Your task to perform on an android device: Open Google Maps Image 0: 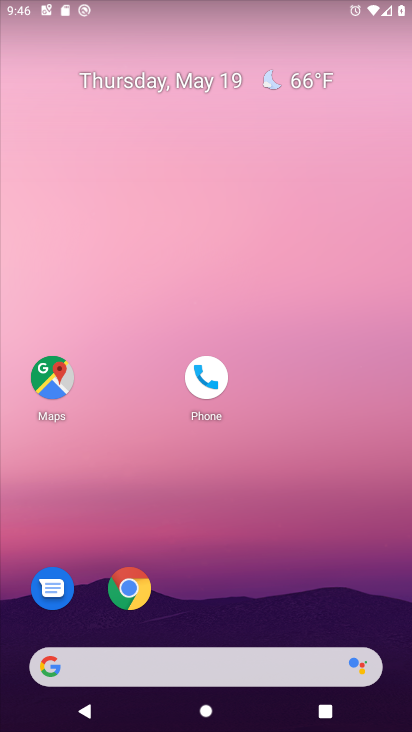
Step 0: drag from (309, 582) to (335, 160)
Your task to perform on an android device: Open Google Maps Image 1: 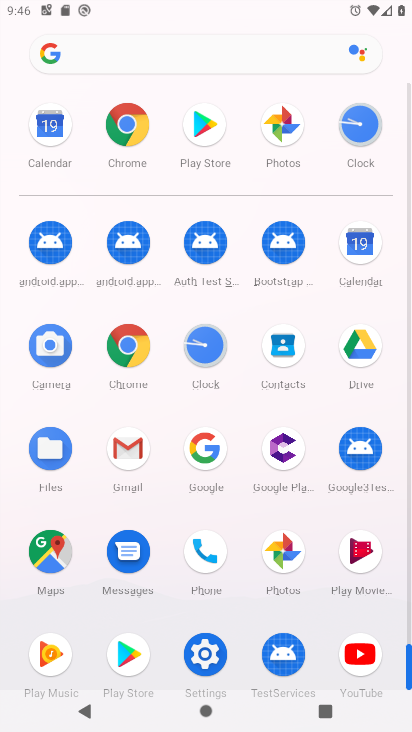
Step 1: click (62, 559)
Your task to perform on an android device: Open Google Maps Image 2: 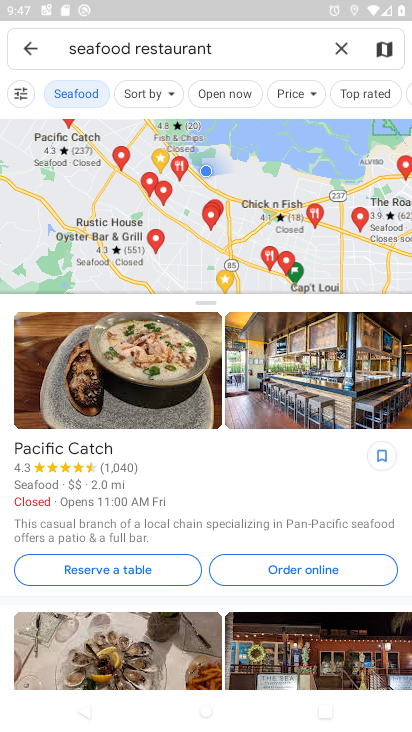
Step 2: task complete